Your task to perform on an android device: manage bookmarks in the chrome app Image 0: 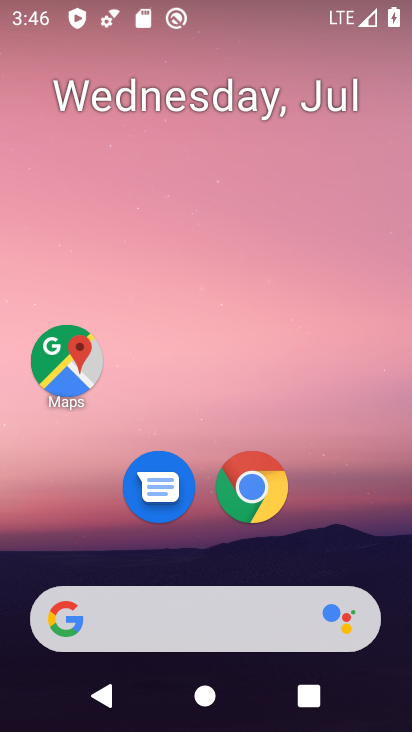
Step 0: drag from (230, 248) to (282, 140)
Your task to perform on an android device: manage bookmarks in the chrome app Image 1: 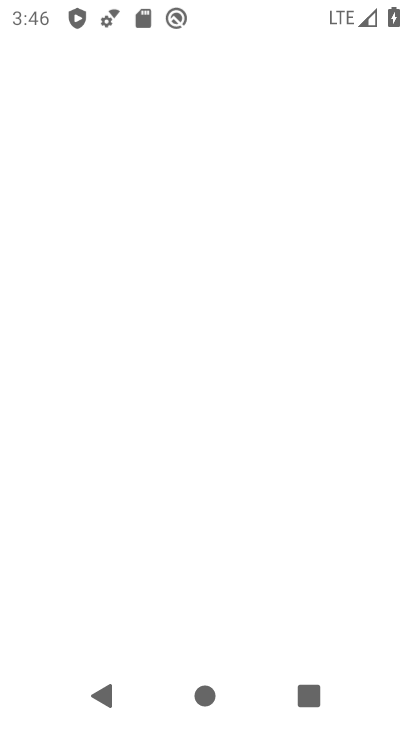
Step 1: press home button
Your task to perform on an android device: manage bookmarks in the chrome app Image 2: 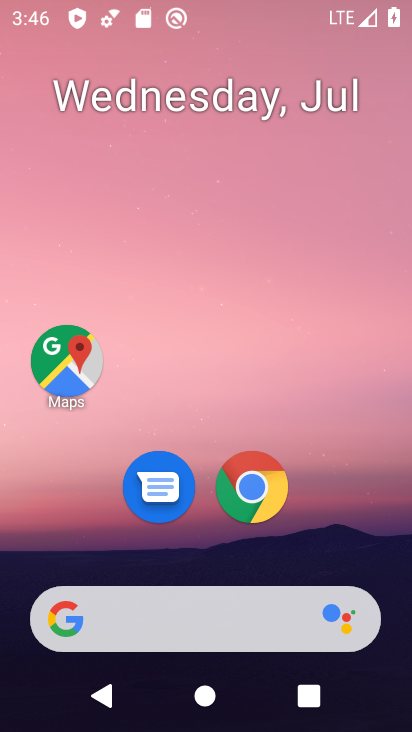
Step 2: drag from (200, 680) to (281, 55)
Your task to perform on an android device: manage bookmarks in the chrome app Image 3: 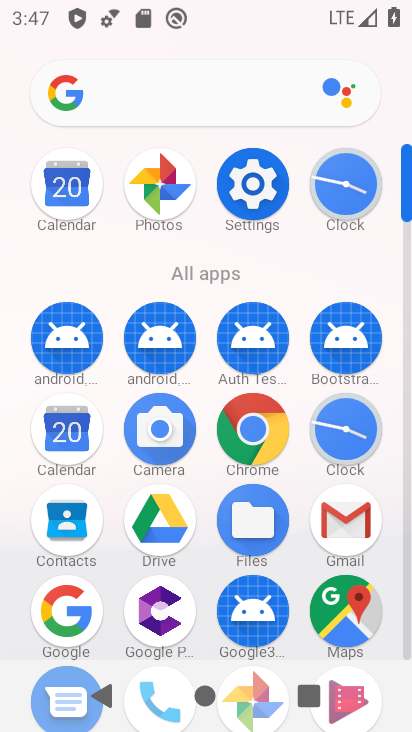
Step 3: click (259, 448)
Your task to perform on an android device: manage bookmarks in the chrome app Image 4: 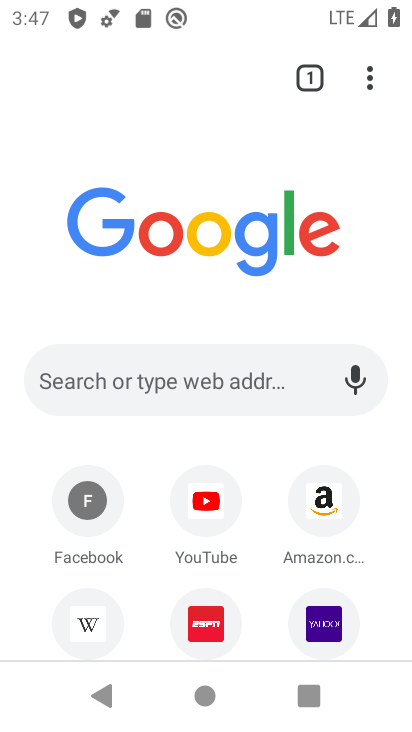
Step 4: click (370, 91)
Your task to perform on an android device: manage bookmarks in the chrome app Image 5: 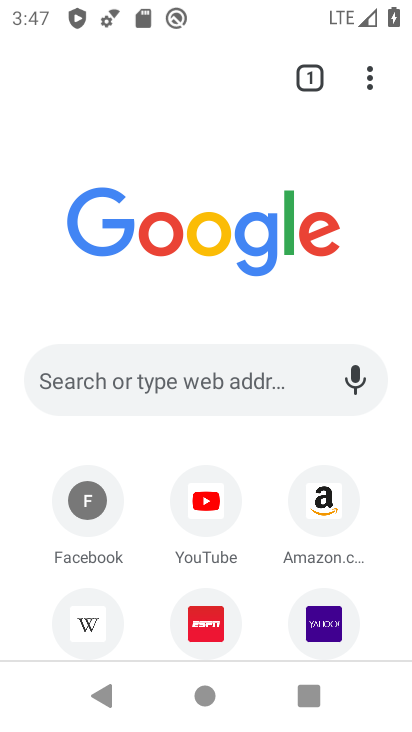
Step 5: click (370, 91)
Your task to perform on an android device: manage bookmarks in the chrome app Image 6: 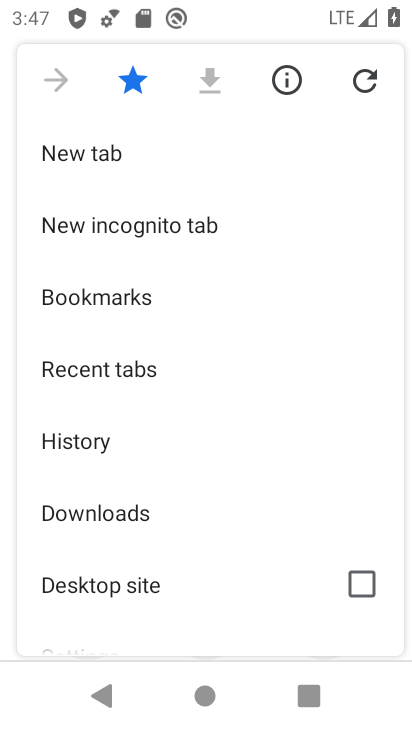
Step 6: click (108, 302)
Your task to perform on an android device: manage bookmarks in the chrome app Image 7: 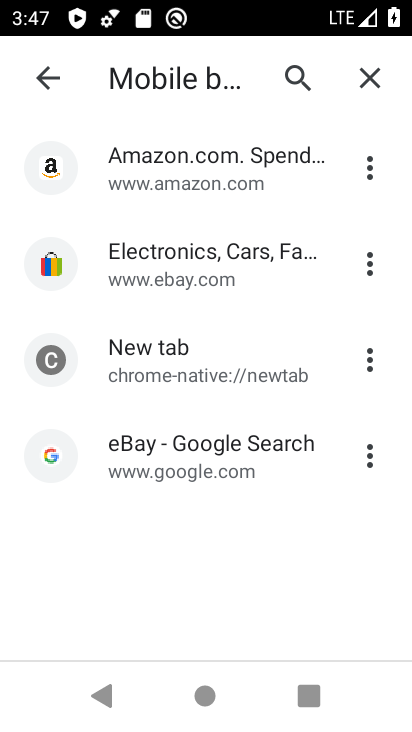
Step 7: task complete